Your task to perform on an android device: How do I get to the nearest Target? Image 0: 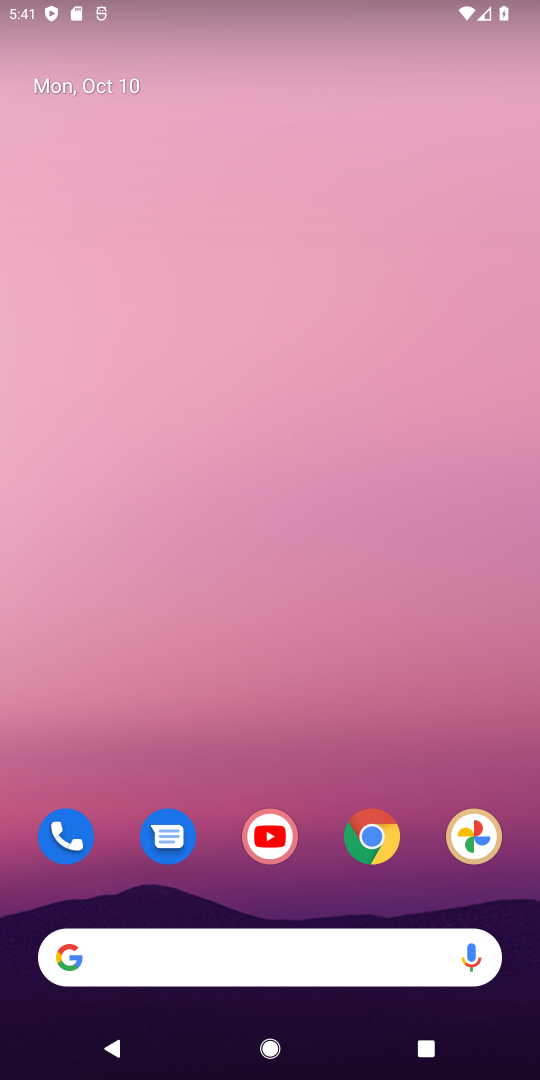
Step 0: click (372, 841)
Your task to perform on an android device: How do I get to the nearest Target? Image 1: 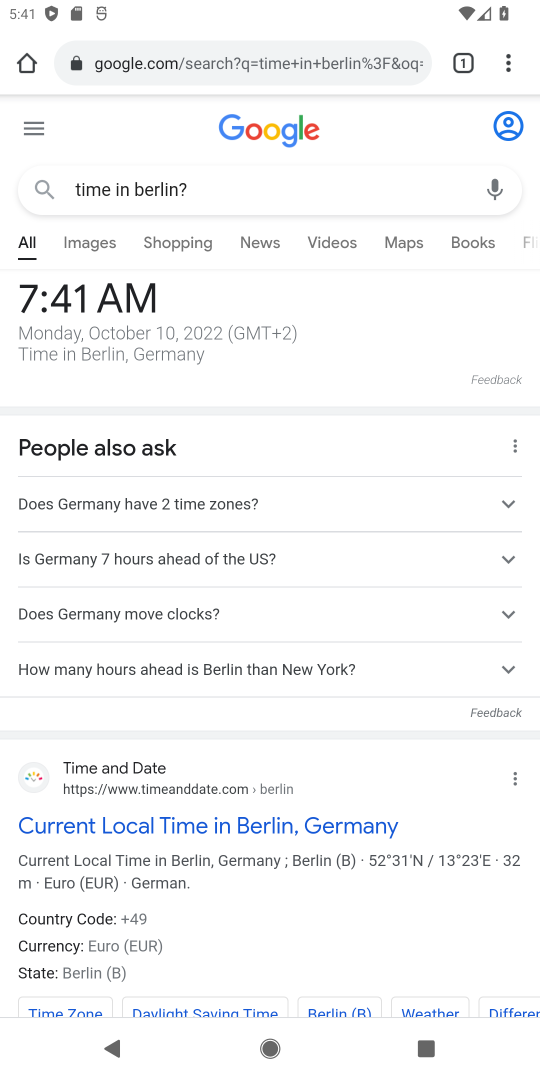
Step 1: click (247, 43)
Your task to perform on an android device: How do I get to the nearest Target? Image 2: 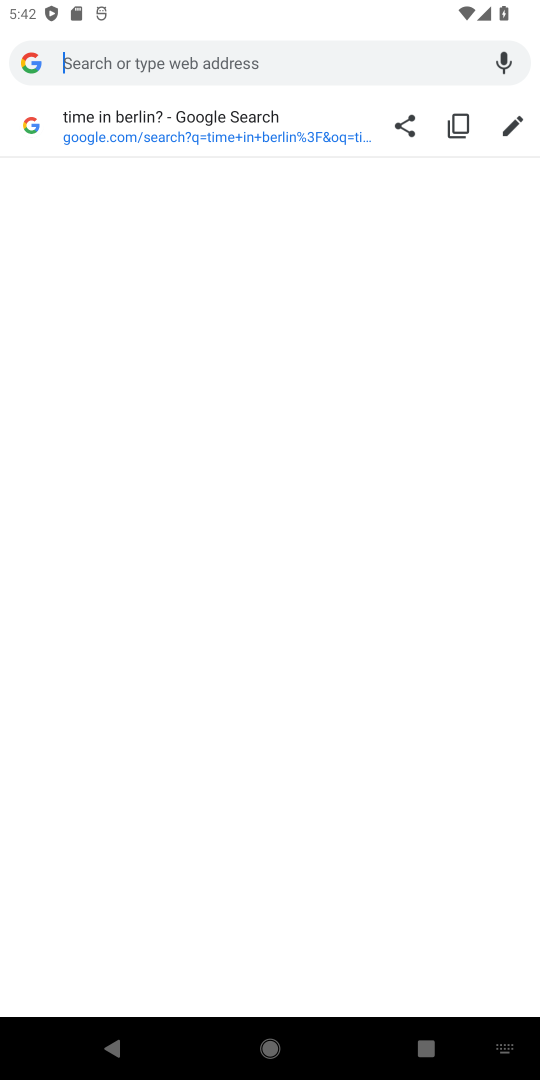
Step 2: type "nearest Target?"
Your task to perform on an android device: How do I get to the nearest Target? Image 3: 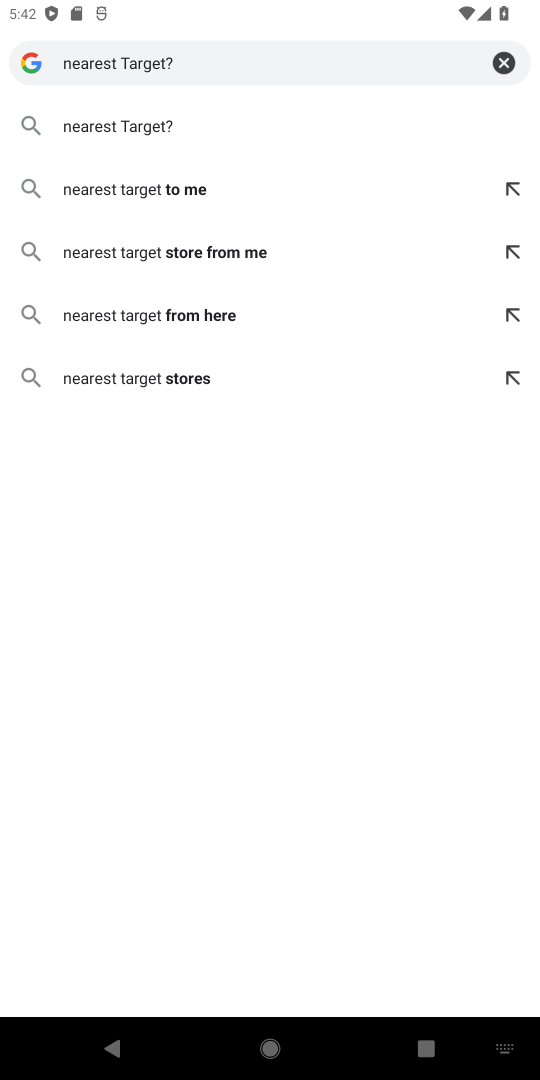
Step 3: click (109, 131)
Your task to perform on an android device: How do I get to the nearest Target? Image 4: 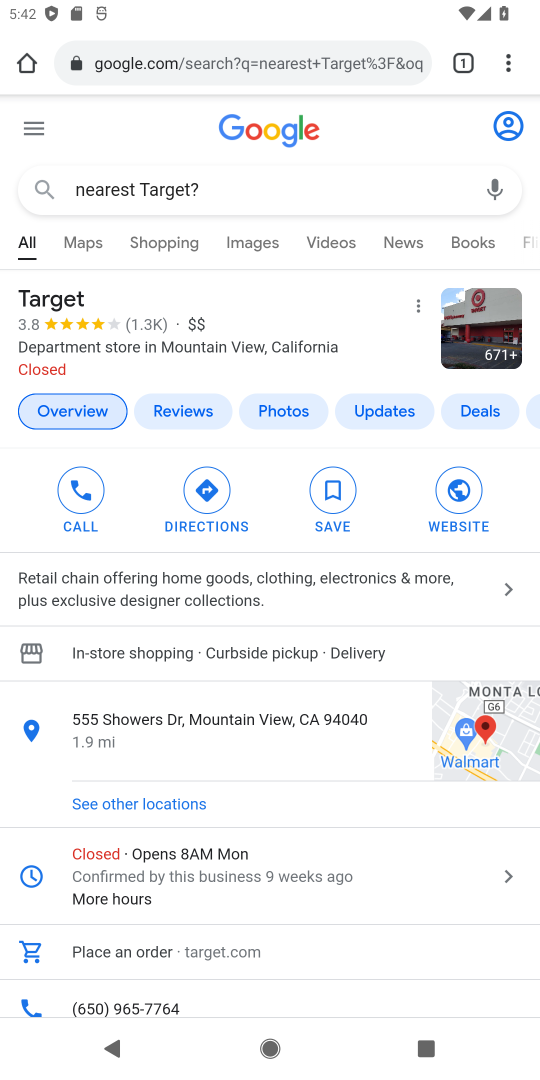
Step 4: drag from (309, 793) to (302, 336)
Your task to perform on an android device: How do I get to the nearest Target? Image 5: 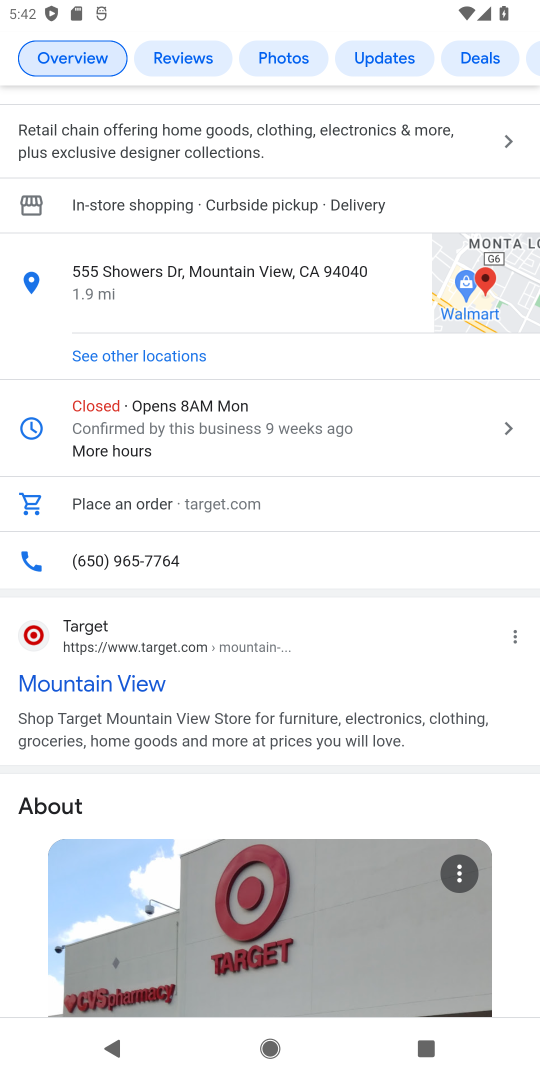
Step 5: drag from (267, 371) to (215, 813)
Your task to perform on an android device: How do I get to the nearest Target? Image 6: 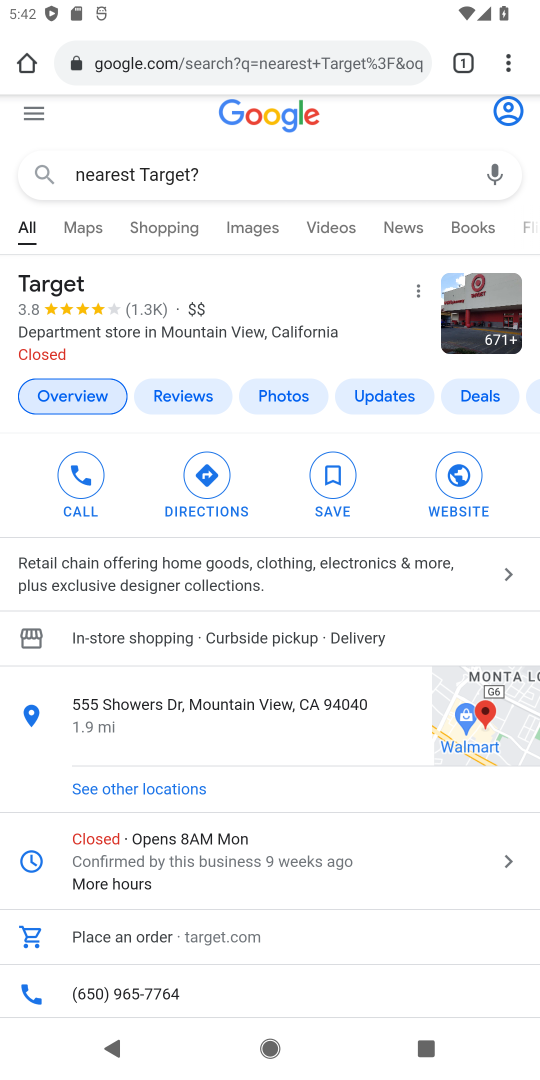
Step 6: click (45, 287)
Your task to perform on an android device: How do I get to the nearest Target? Image 7: 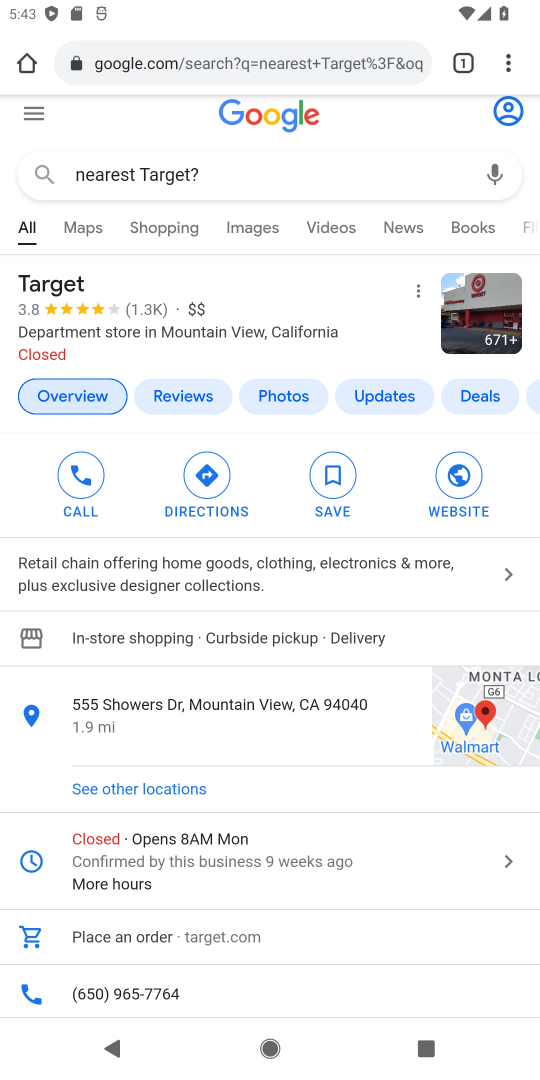
Step 7: click (45, 287)
Your task to perform on an android device: How do I get to the nearest Target? Image 8: 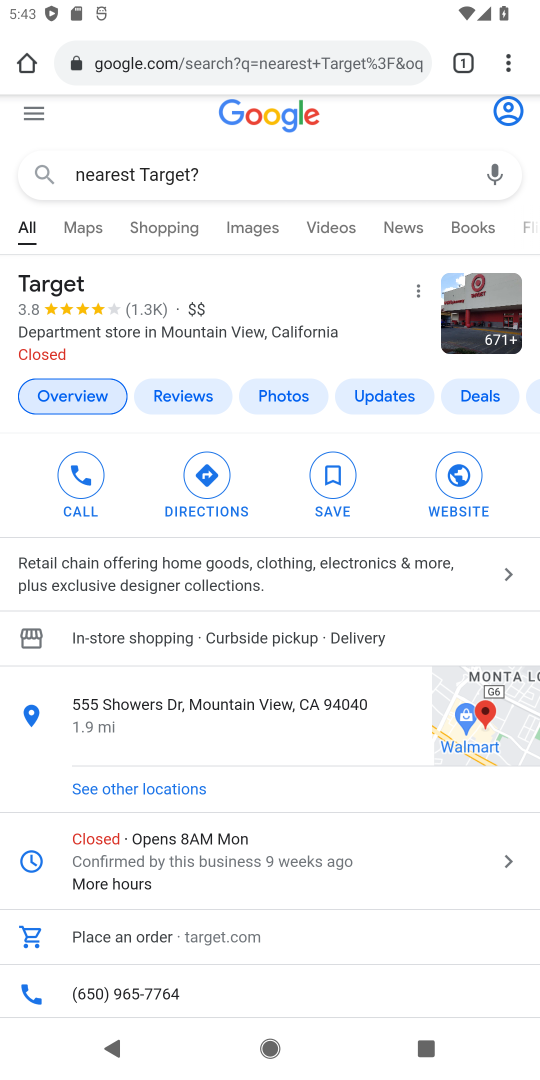
Step 8: drag from (269, 756) to (269, 111)
Your task to perform on an android device: How do I get to the nearest Target? Image 9: 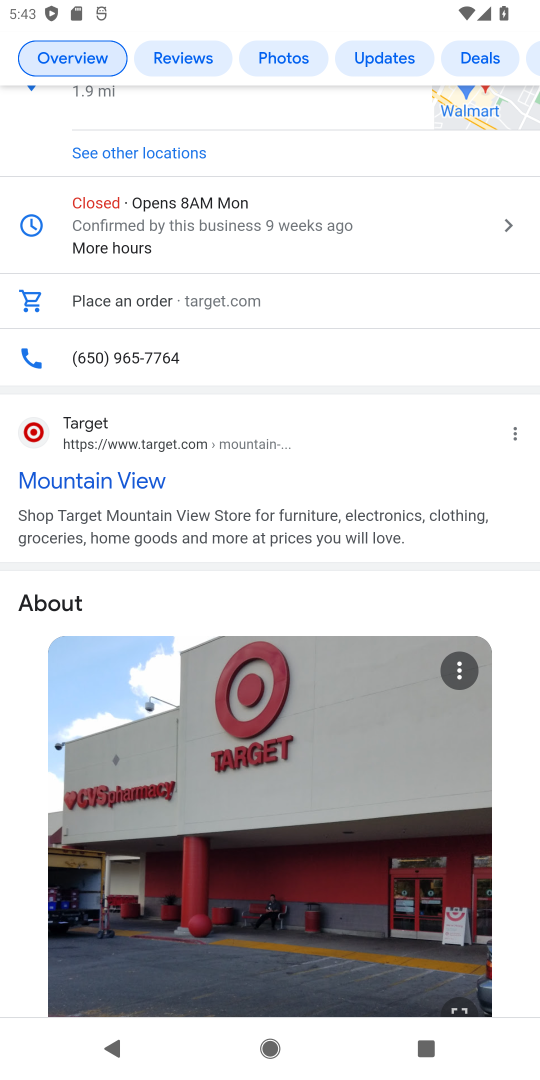
Step 9: drag from (231, 650) to (281, 81)
Your task to perform on an android device: How do I get to the nearest Target? Image 10: 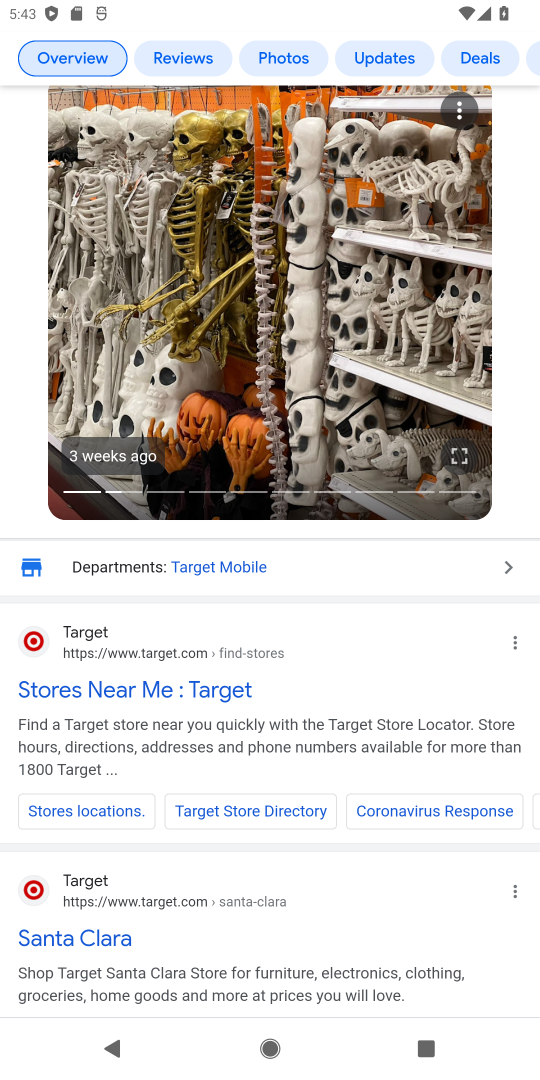
Step 10: click (281, 81)
Your task to perform on an android device: How do I get to the nearest Target? Image 11: 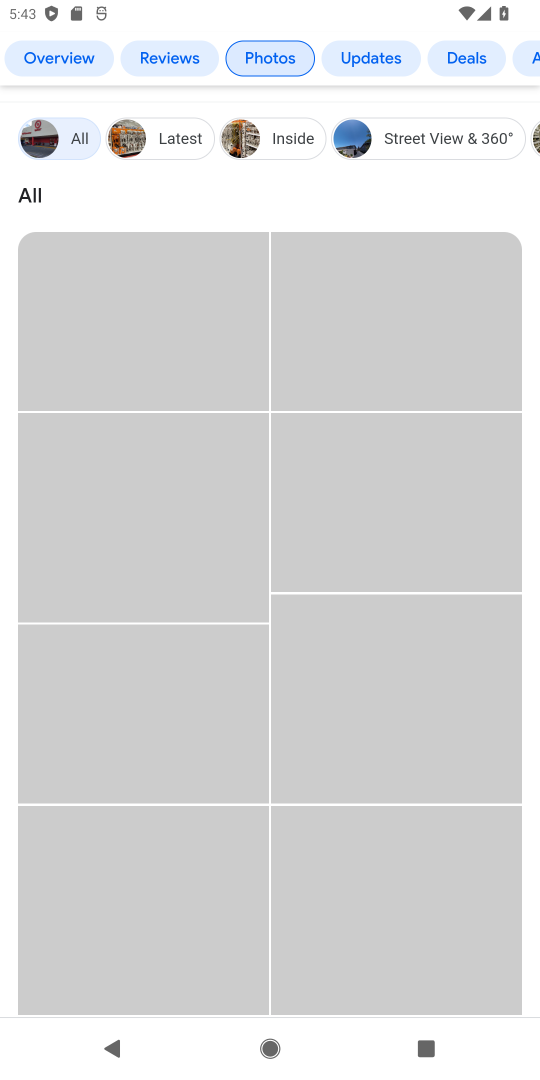
Step 11: task complete